Your task to perform on an android device: turn notification dots on Image 0: 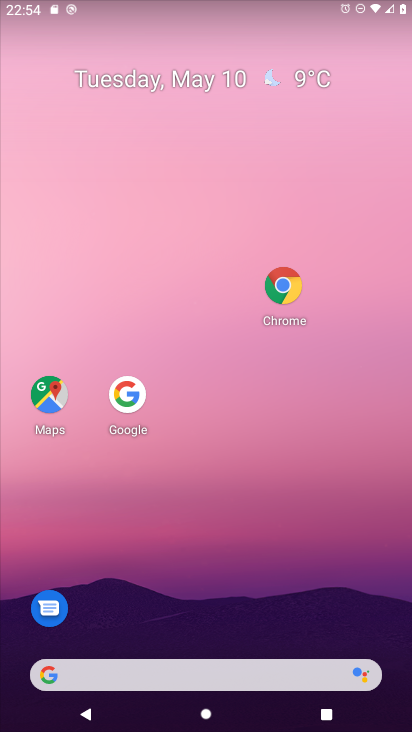
Step 0: drag from (226, 669) to (335, 168)
Your task to perform on an android device: turn notification dots on Image 1: 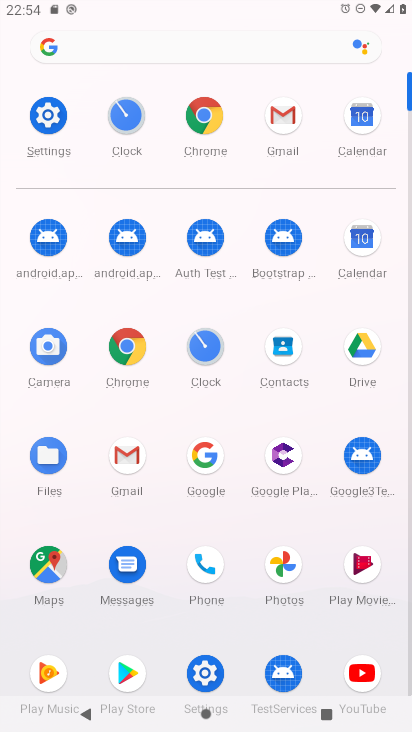
Step 1: click (49, 119)
Your task to perform on an android device: turn notification dots on Image 2: 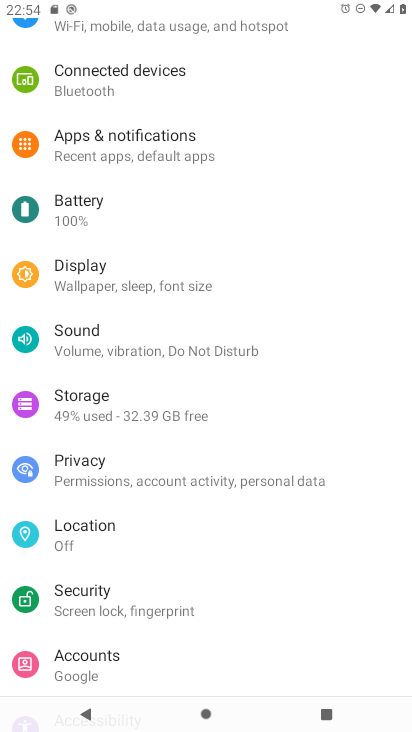
Step 2: click (154, 141)
Your task to perform on an android device: turn notification dots on Image 3: 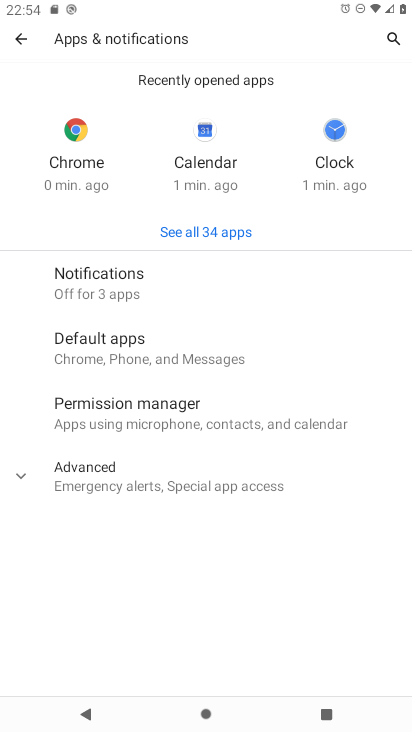
Step 3: click (124, 283)
Your task to perform on an android device: turn notification dots on Image 4: 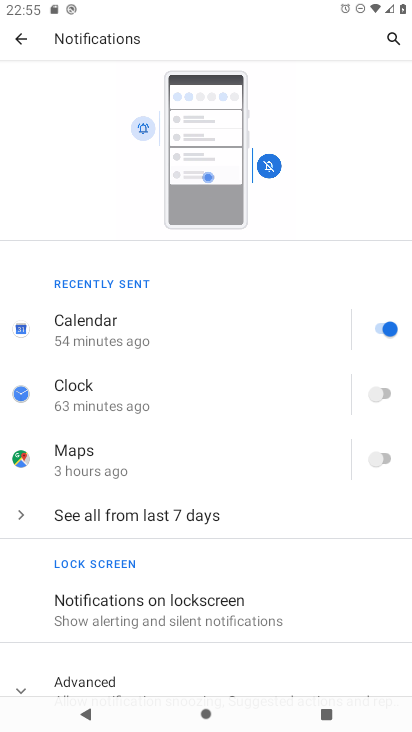
Step 4: drag from (214, 573) to (320, 245)
Your task to perform on an android device: turn notification dots on Image 5: 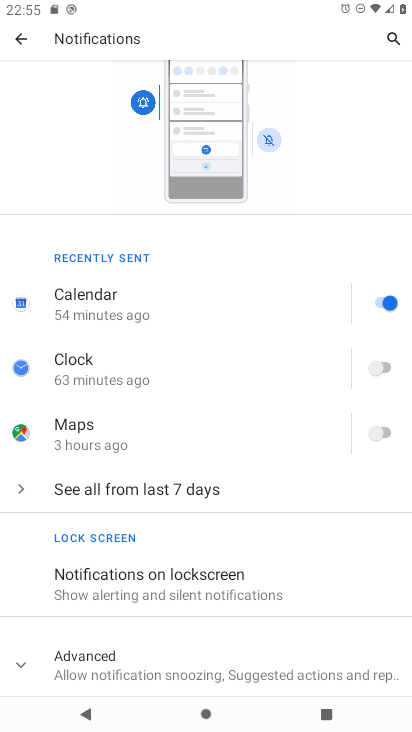
Step 5: click (150, 674)
Your task to perform on an android device: turn notification dots on Image 6: 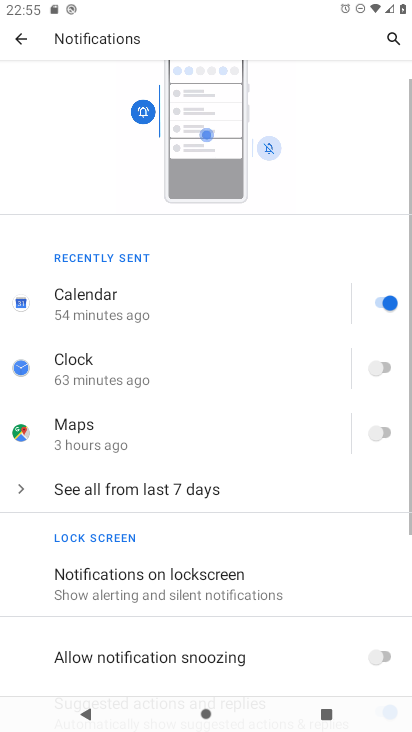
Step 6: task complete